Your task to perform on an android device: Open my contact list Image 0: 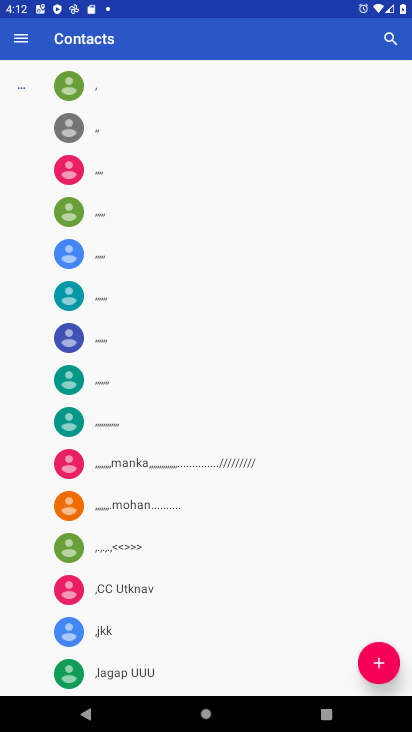
Step 0: press home button
Your task to perform on an android device: Open my contact list Image 1: 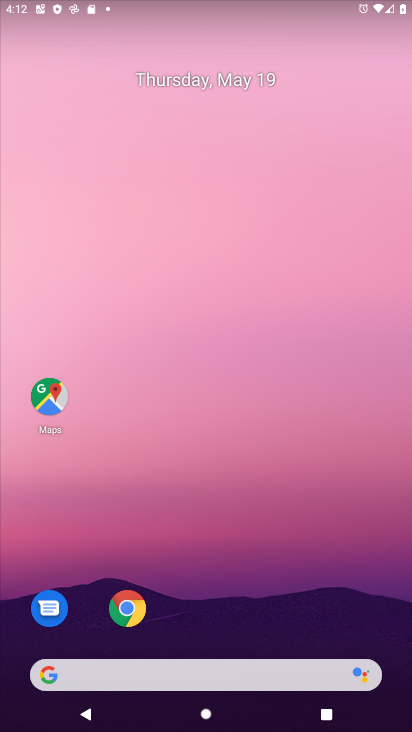
Step 1: drag from (226, 609) to (248, 91)
Your task to perform on an android device: Open my contact list Image 2: 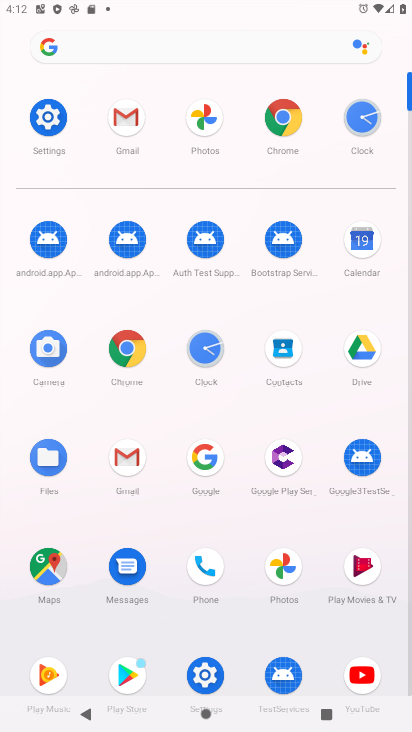
Step 2: click (280, 369)
Your task to perform on an android device: Open my contact list Image 3: 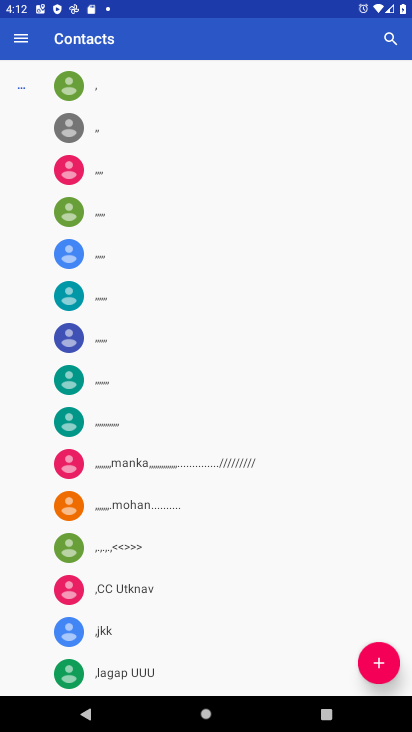
Step 3: task complete